Your task to perform on an android device: install app "Duolingo: language lessons" Image 0: 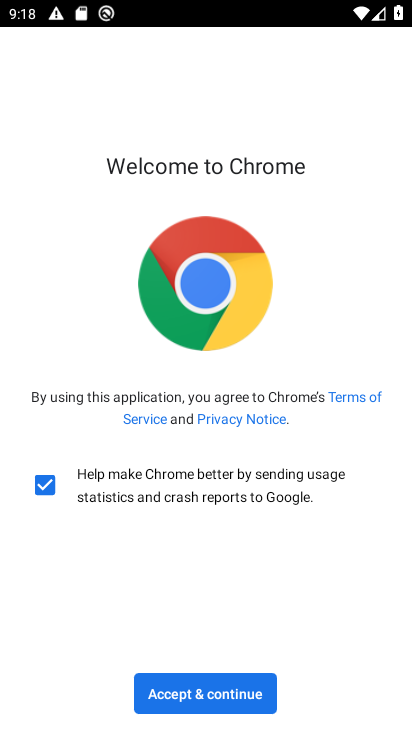
Step 0: press home button
Your task to perform on an android device: install app "Duolingo: language lessons" Image 1: 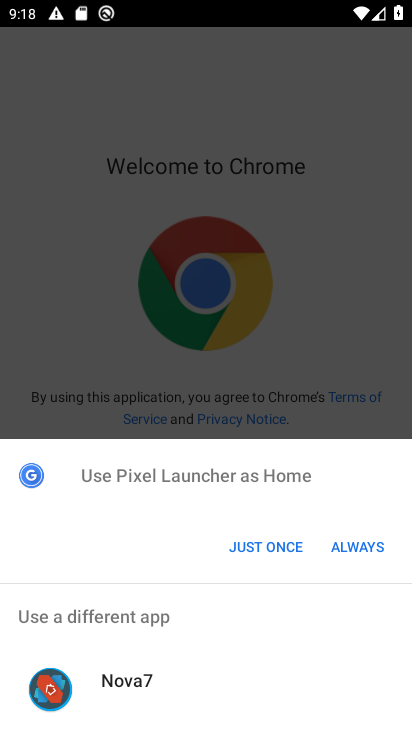
Step 1: click (284, 536)
Your task to perform on an android device: install app "Duolingo: language lessons" Image 2: 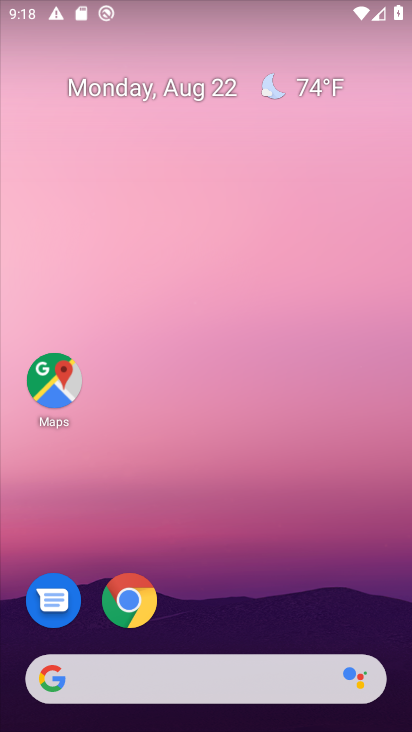
Step 2: click (159, 590)
Your task to perform on an android device: install app "Duolingo: language lessons" Image 3: 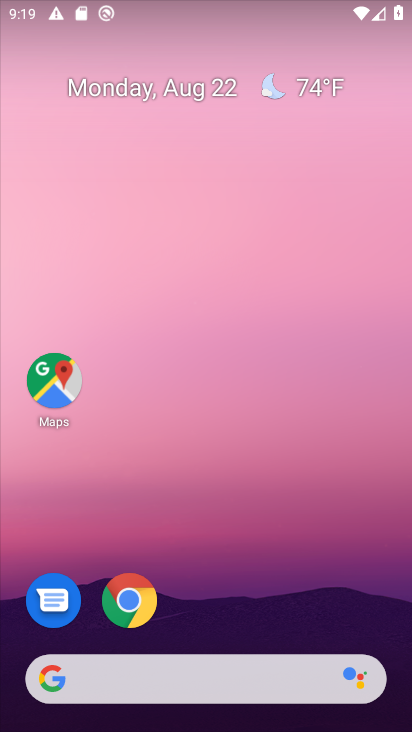
Step 3: drag from (235, 574) to (208, 196)
Your task to perform on an android device: install app "Duolingo: language lessons" Image 4: 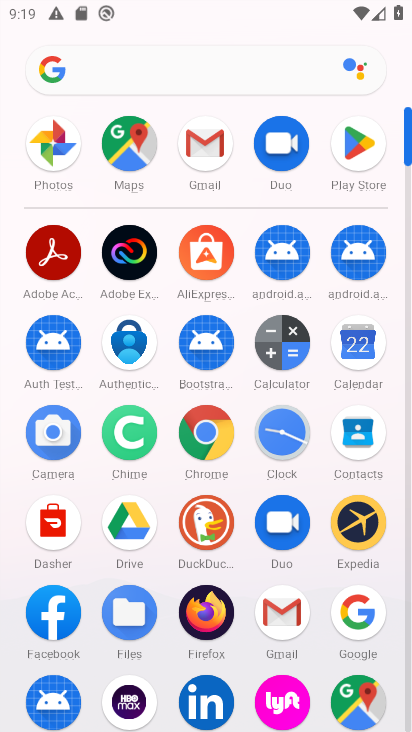
Step 4: click (354, 135)
Your task to perform on an android device: install app "Duolingo: language lessons" Image 5: 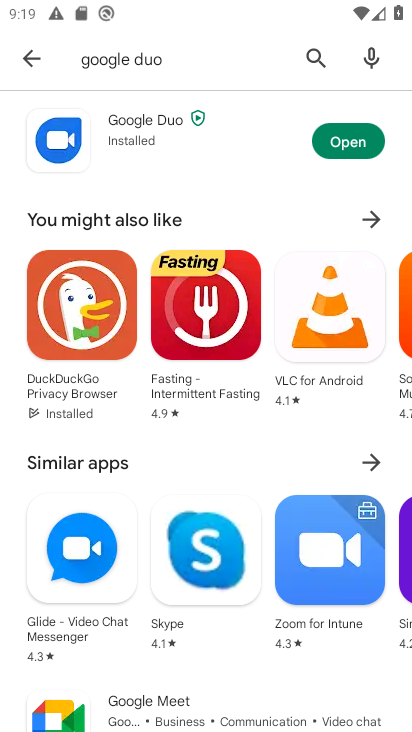
Step 5: click (307, 63)
Your task to perform on an android device: install app "Duolingo: language lessons" Image 6: 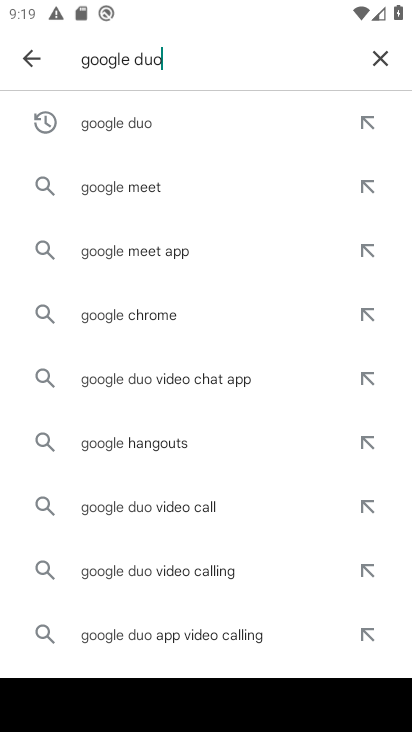
Step 6: click (375, 47)
Your task to perform on an android device: install app "Duolingo: language lessons" Image 7: 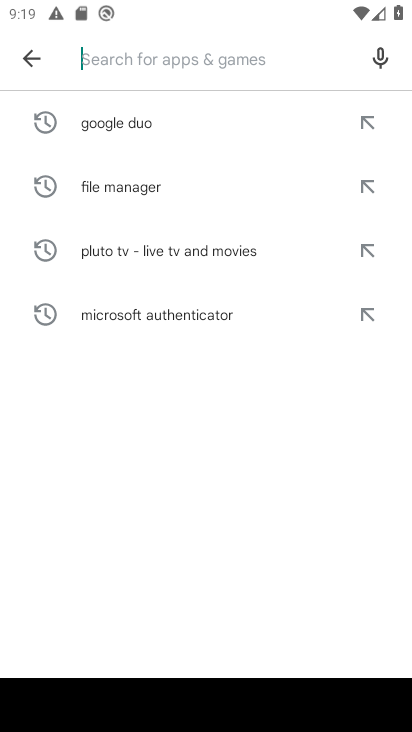
Step 7: type "Duolingo: language lessons"
Your task to perform on an android device: install app "Duolingo: language lessons" Image 8: 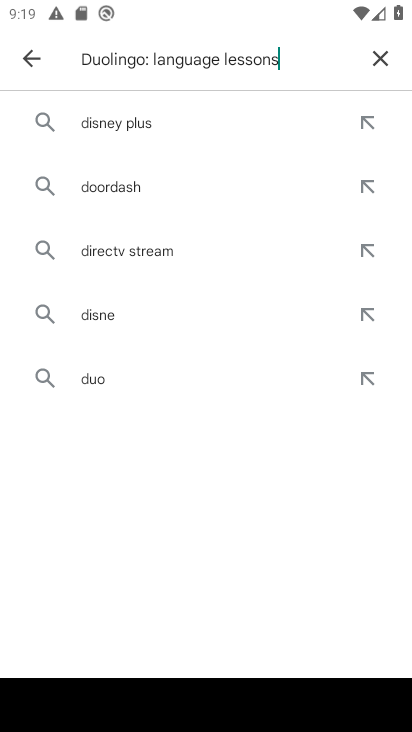
Step 8: type ""
Your task to perform on an android device: install app "Duolingo: language lessons" Image 9: 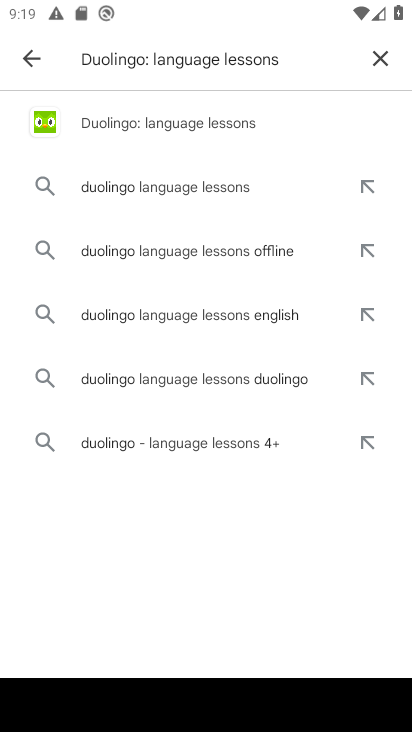
Step 9: click (206, 109)
Your task to perform on an android device: install app "Duolingo: language lessons" Image 10: 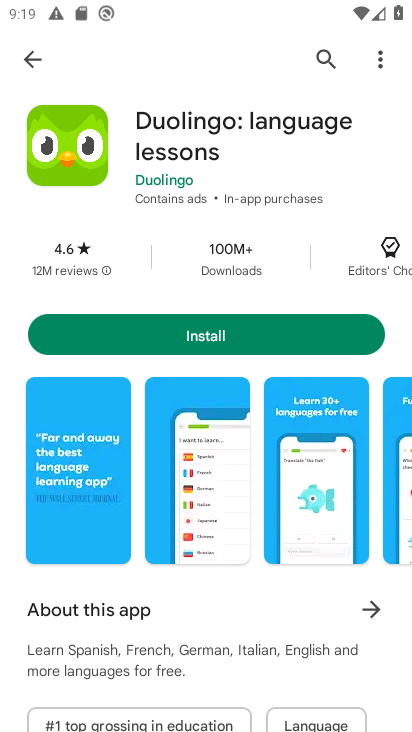
Step 10: click (197, 334)
Your task to perform on an android device: install app "Duolingo: language lessons" Image 11: 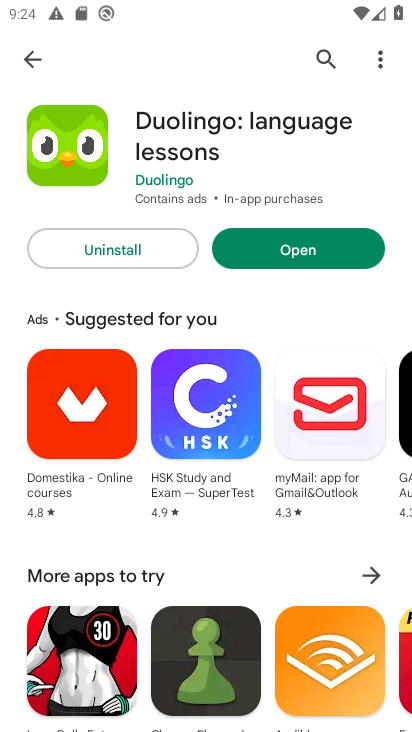
Step 11: task complete